Your task to perform on an android device: delete browsing data in the chrome app Image 0: 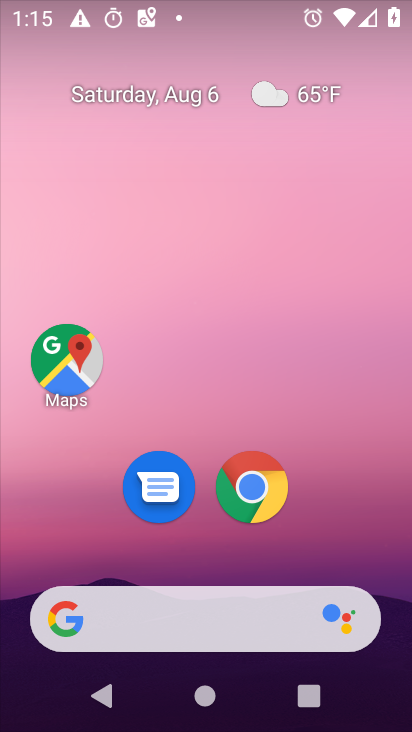
Step 0: click (261, 481)
Your task to perform on an android device: delete browsing data in the chrome app Image 1: 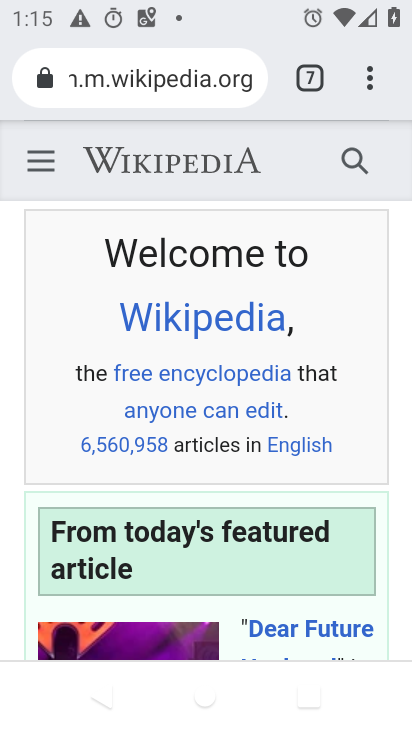
Step 1: drag from (369, 73) to (100, 446)
Your task to perform on an android device: delete browsing data in the chrome app Image 2: 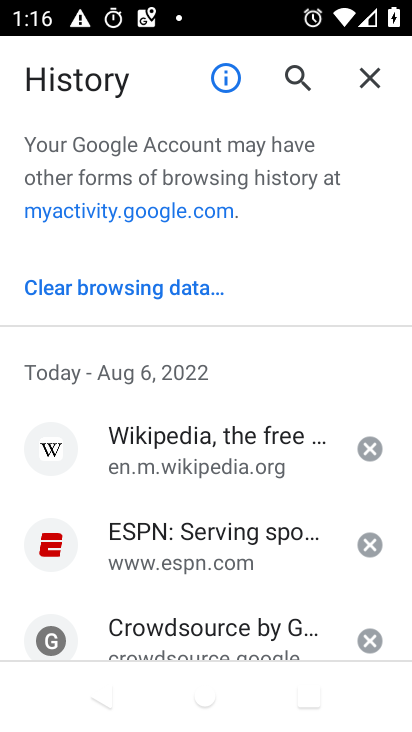
Step 2: click (83, 303)
Your task to perform on an android device: delete browsing data in the chrome app Image 3: 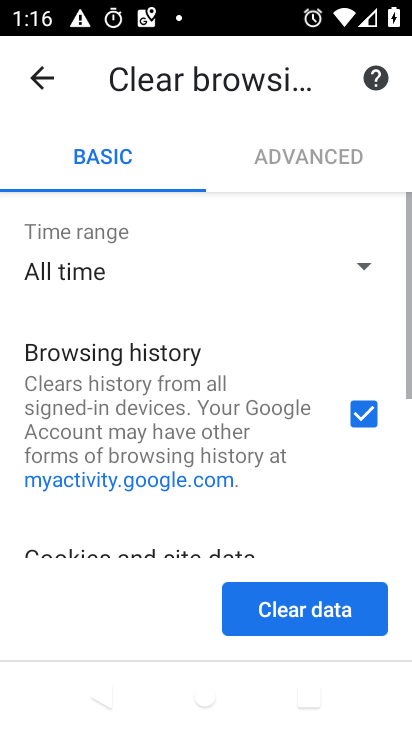
Step 3: drag from (202, 541) to (295, 77)
Your task to perform on an android device: delete browsing data in the chrome app Image 4: 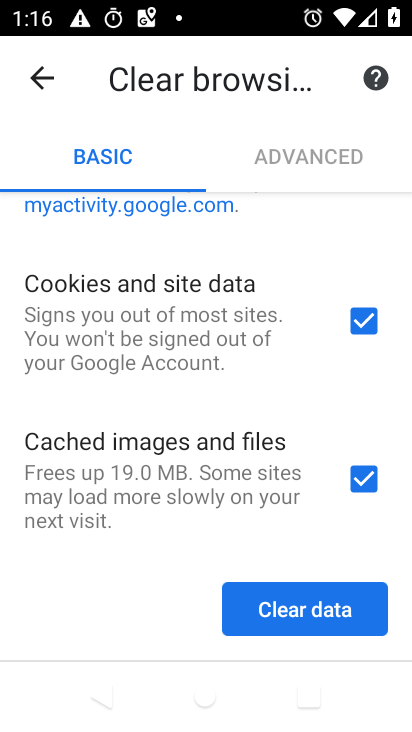
Step 4: click (304, 601)
Your task to perform on an android device: delete browsing data in the chrome app Image 5: 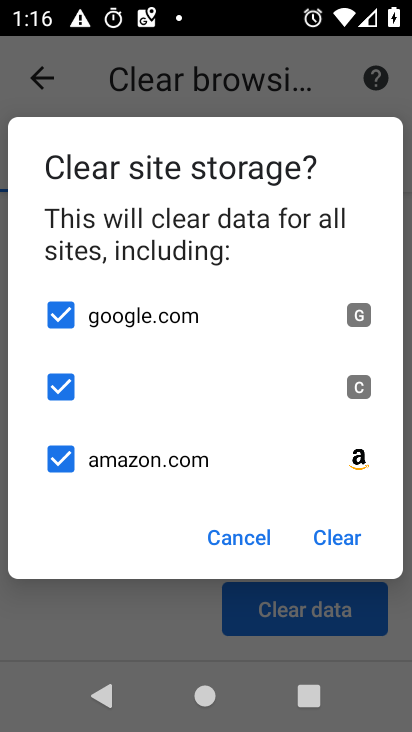
Step 5: click (359, 528)
Your task to perform on an android device: delete browsing data in the chrome app Image 6: 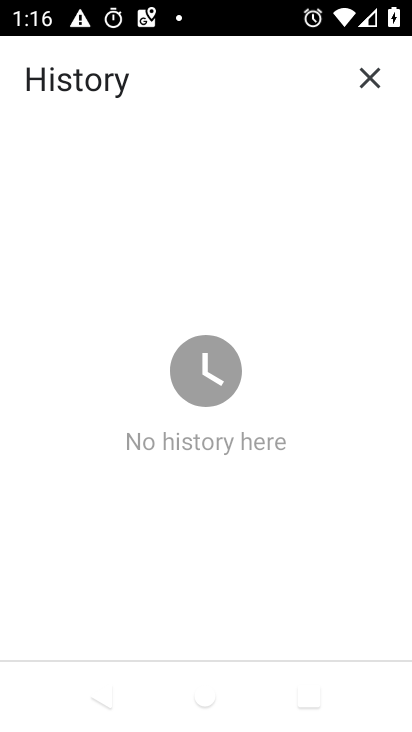
Step 6: task complete